Your task to perform on an android device: change alarm snooze length Image 0: 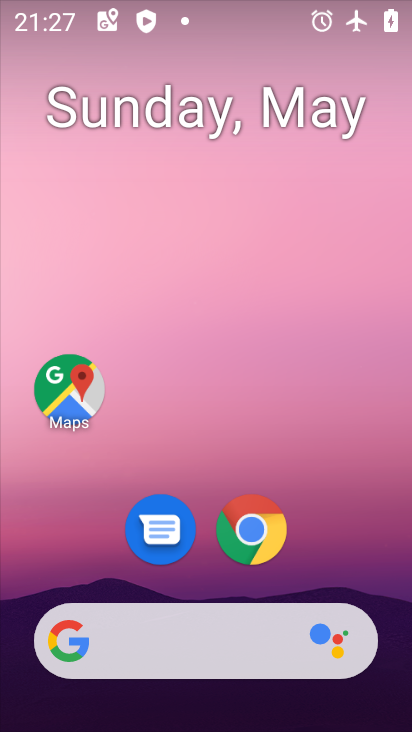
Step 0: drag from (345, 594) to (309, 8)
Your task to perform on an android device: change alarm snooze length Image 1: 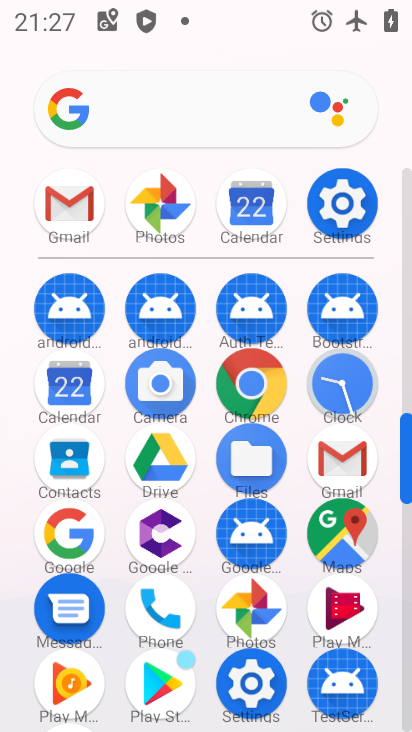
Step 1: click (346, 391)
Your task to perform on an android device: change alarm snooze length Image 2: 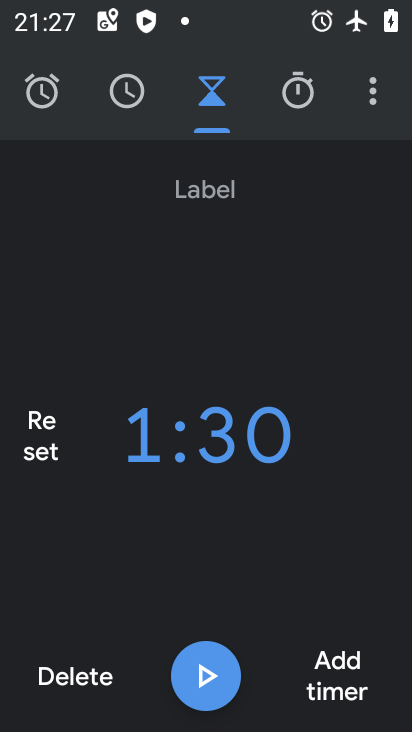
Step 2: click (375, 98)
Your task to perform on an android device: change alarm snooze length Image 3: 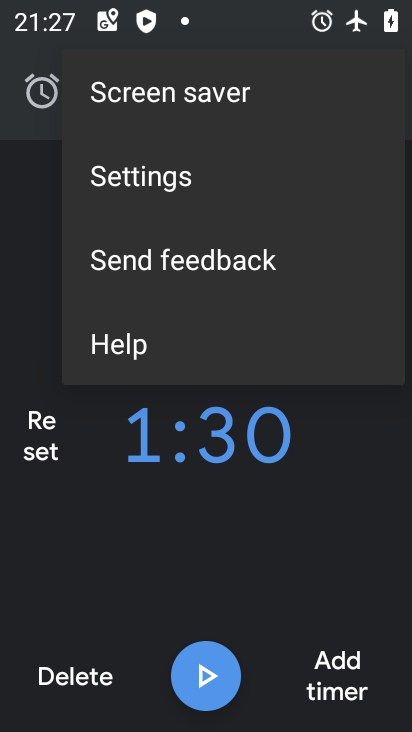
Step 3: click (160, 188)
Your task to perform on an android device: change alarm snooze length Image 4: 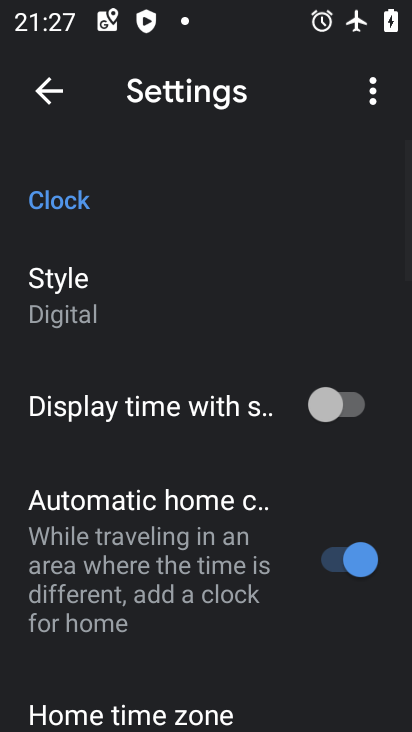
Step 4: drag from (200, 543) to (131, 141)
Your task to perform on an android device: change alarm snooze length Image 5: 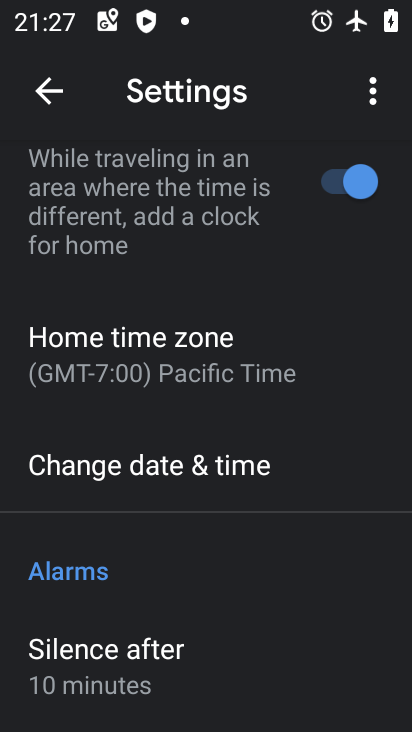
Step 5: drag from (170, 545) to (108, 147)
Your task to perform on an android device: change alarm snooze length Image 6: 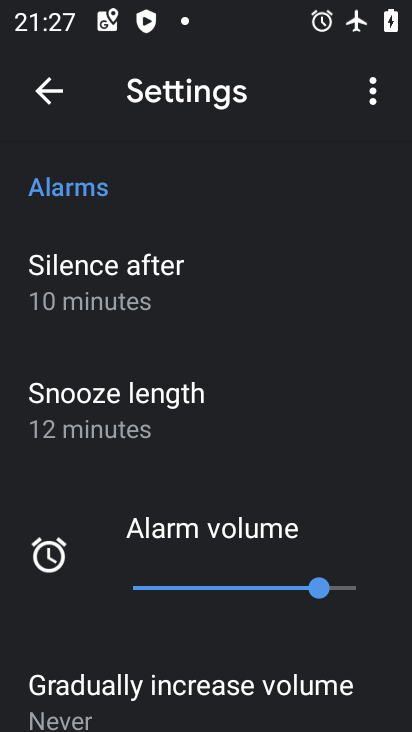
Step 6: click (101, 421)
Your task to perform on an android device: change alarm snooze length Image 7: 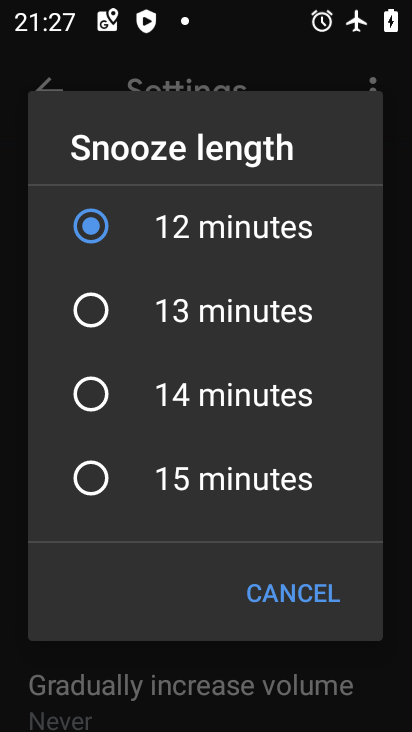
Step 7: click (89, 310)
Your task to perform on an android device: change alarm snooze length Image 8: 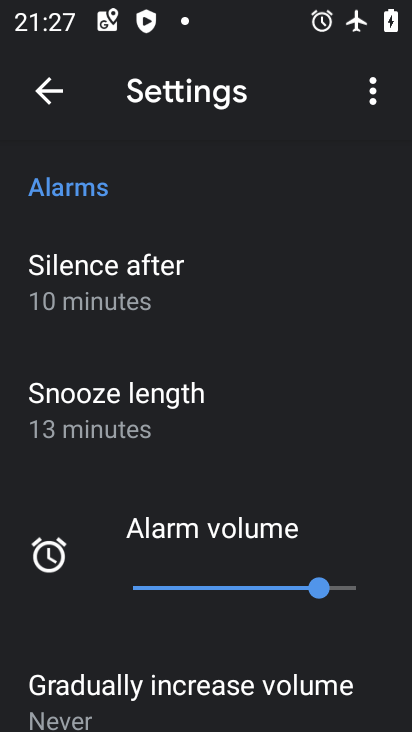
Step 8: task complete